Your task to perform on an android device: delete location history Image 0: 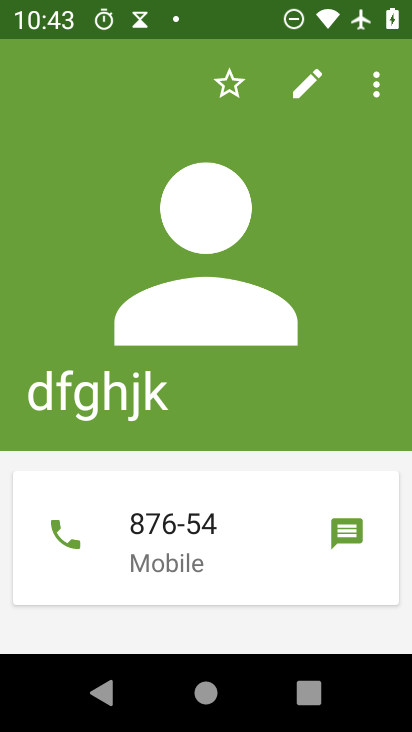
Step 0: press back button
Your task to perform on an android device: delete location history Image 1: 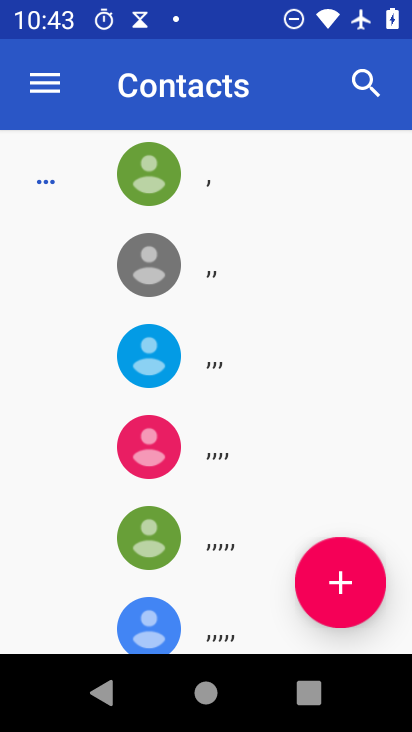
Step 1: press back button
Your task to perform on an android device: delete location history Image 2: 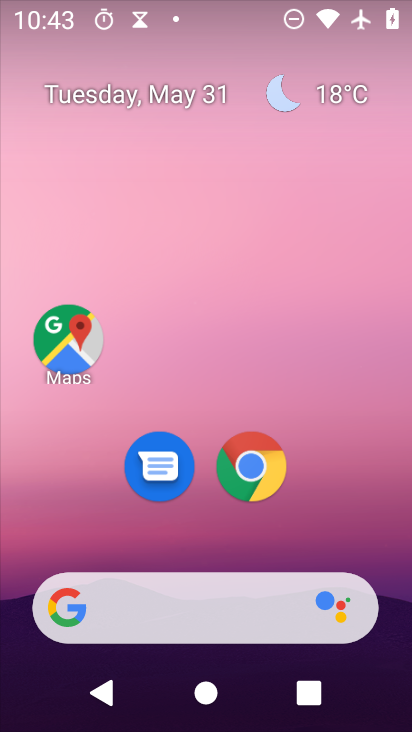
Step 2: drag from (338, 523) to (274, 10)
Your task to perform on an android device: delete location history Image 3: 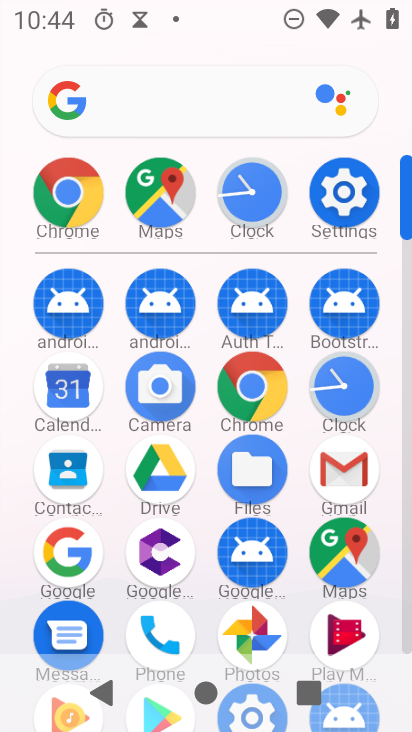
Step 3: click (345, 188)
Your task to perform on an android device: delete location history Image 4: 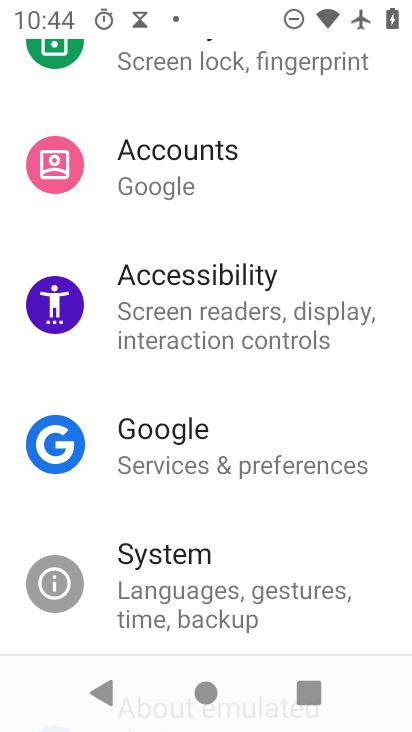
Step 4: drag from (243, 485) to (232, 99)
Your task to perform on an android device: delete location history Image 5: 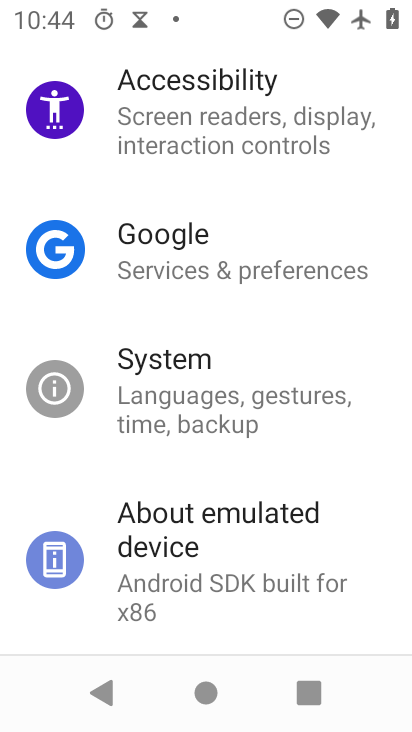
Step 5: drag from (198, 468) to (211, 112)
Your task to perform on an android device: delete location history Image 6: 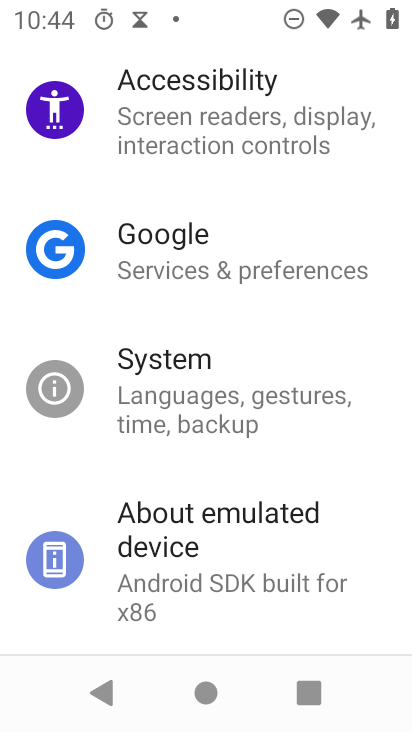
Step 6: drag from (227, 175) to (230, 530)
Your task to perform on an android device: delete location history Image 7: 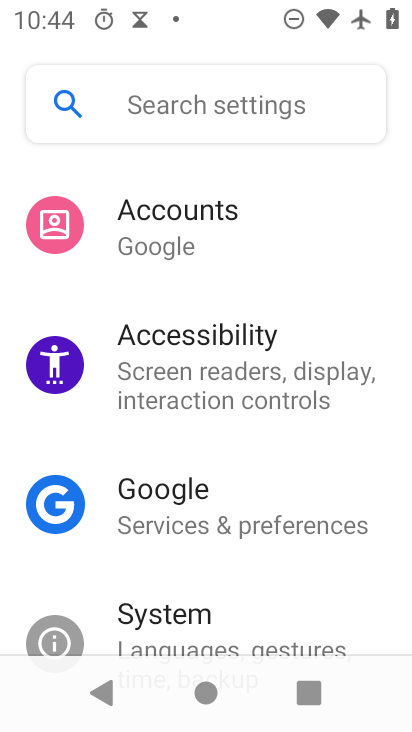
Step 7: drag from (272, 227) to (253, 533)
Your task to perform on an android device: delete location history Image 8: 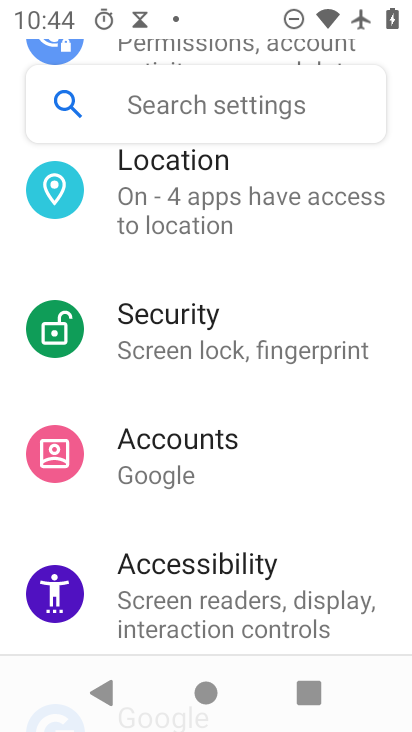
Step 8: drag from (300, 208) to (281, 467)
Your task to perform on an android device: delete location history Image 9: 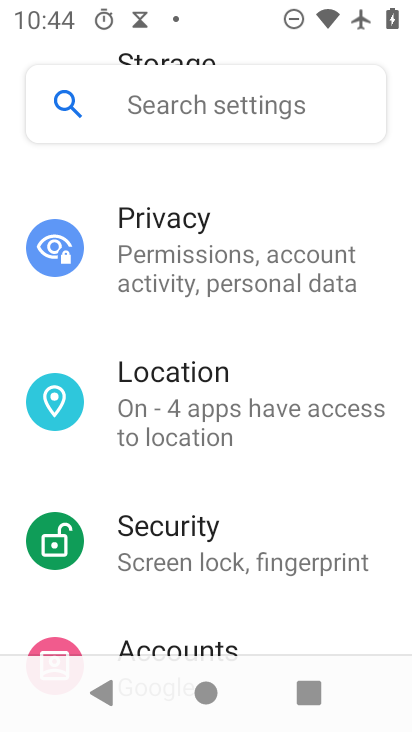
Step 9: click (227, 394)
Your task to perform on an android device: delete location history Image 10: 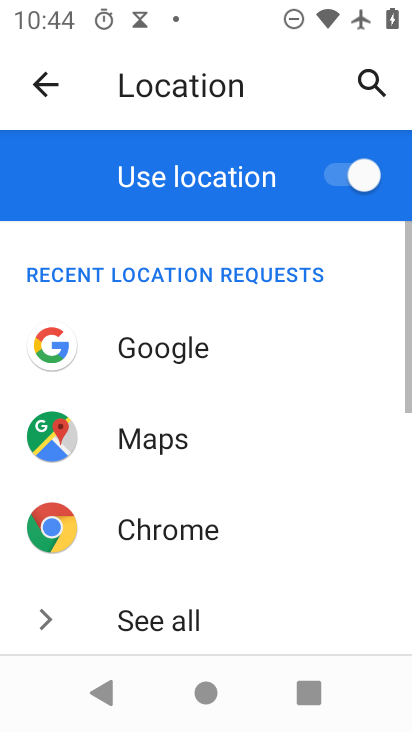
Step 10: drag from (223, 528) to (242, 85)
Your task to perform on an android device: delete location history Image 11: 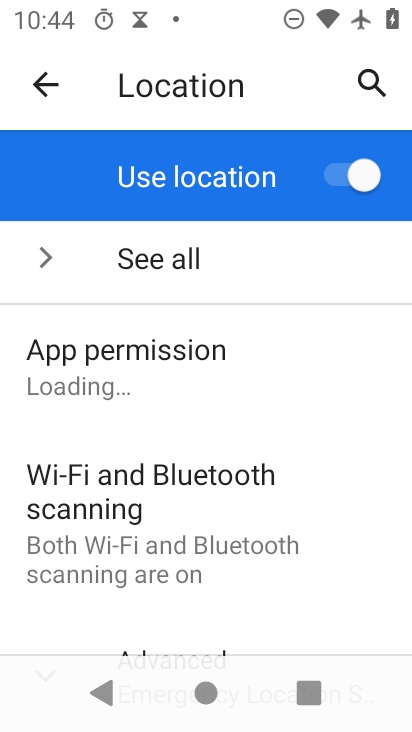
Step 11: drag from (206, 517) to (242, 141)
Your task to perform on an android device: delete location history Image 12: 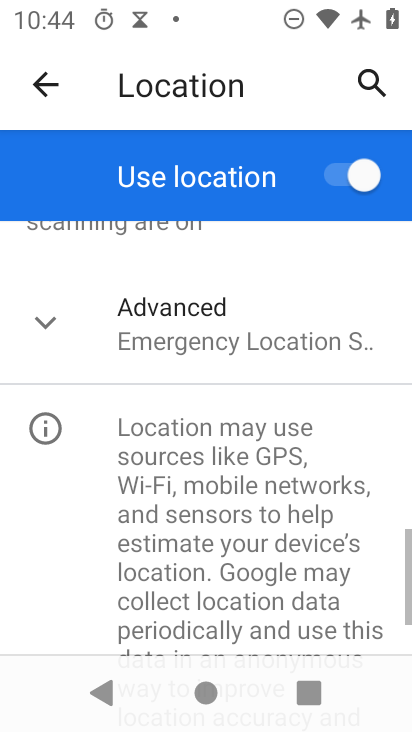
Step 12: click (149, 308)
Your task to perform on an android device: delete location history Image 13: 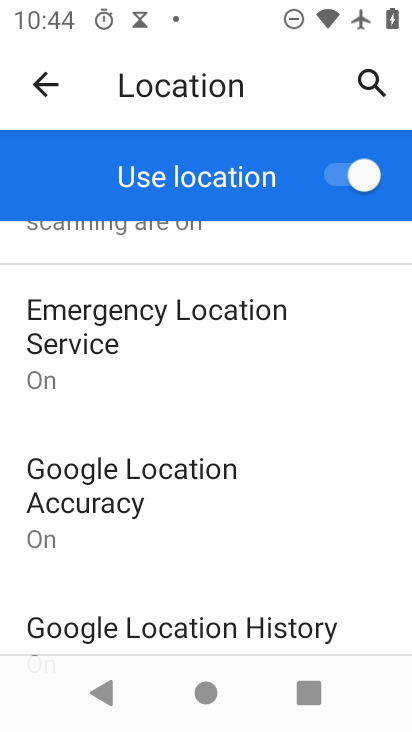
Step 13: drag from (211, 537) to (241, 262)
Your task to perform on an android device: delete location history Image 14: 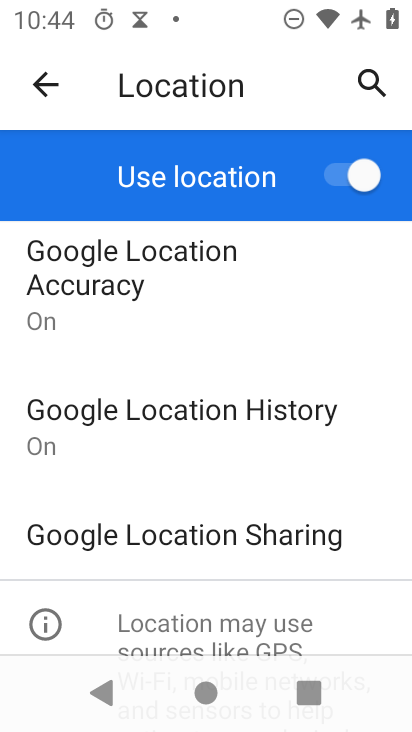
Step 14: click (102, 381)
Your task to perform on an android device: delete location history Image 15: 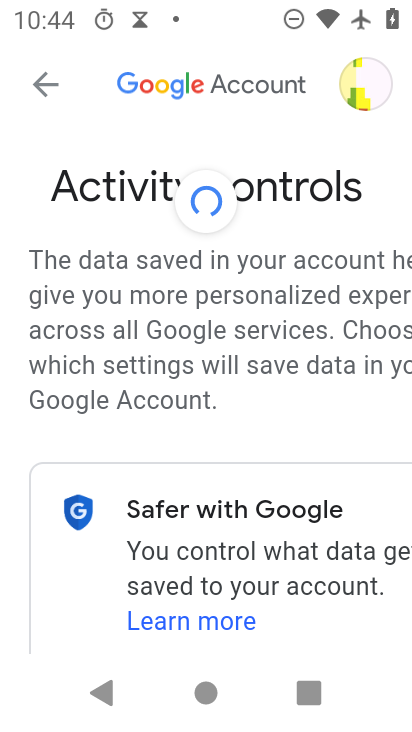
Step 15: drag from (238, 592) to (178, 157)
Your task to perform on an android device: delete location history Image 16: 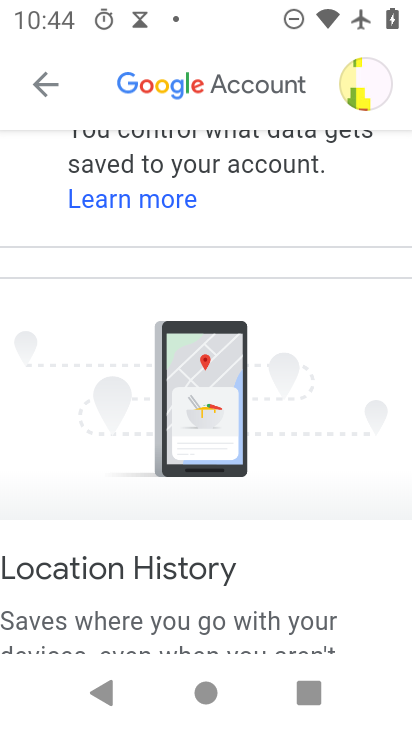
Step 16: drag from (235, 523) to (254, 145)
Your task to perform on an android device: delete location history Image 17: 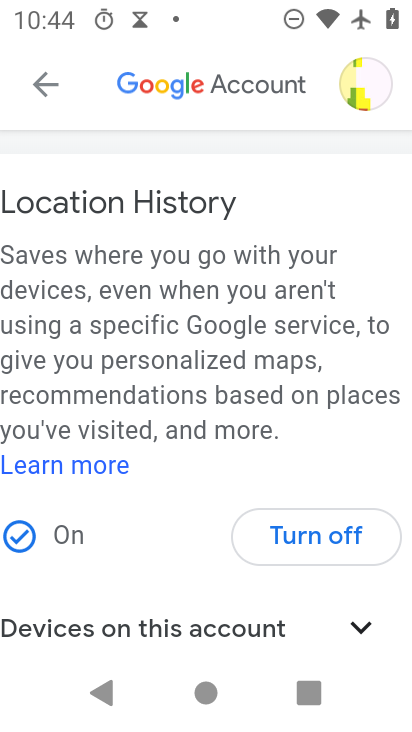
Step 17: drag from (187, 500) to (233, 184)
Your task to perform on an android device: delete location history Image 18: 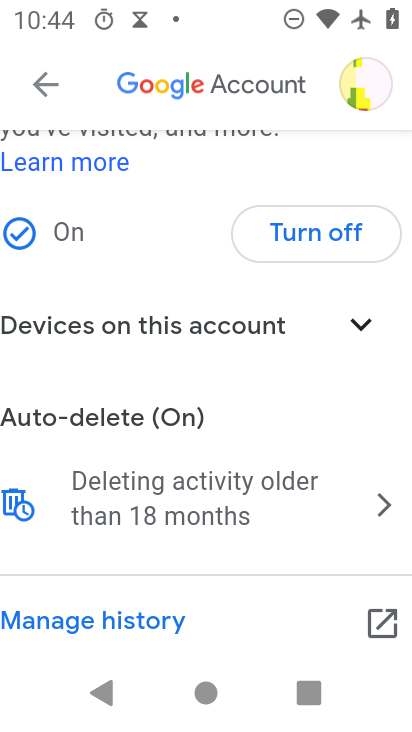
Step 18: click (60, 505)
Your task to perform on an android device: delete location history Image 19: 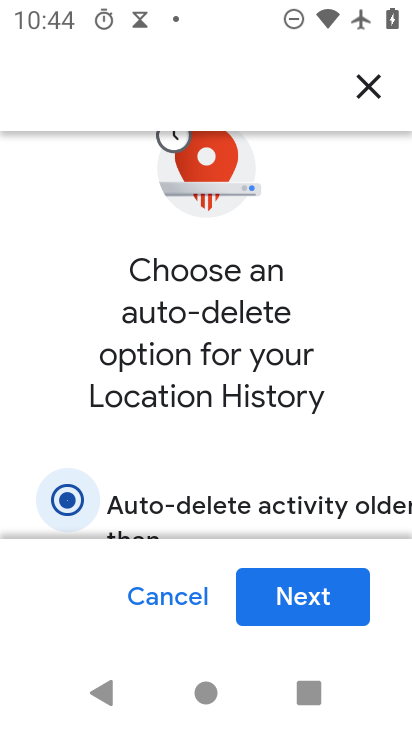
Step 19: click (273, 608)
Your task to perform on an android device: delete location history Image 20: 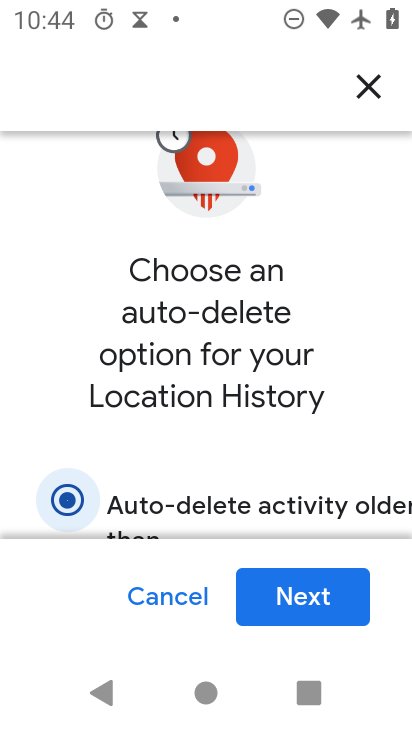
Step 20: click (273, 608)
Your task to perform on an android device: delete location history Image 21: 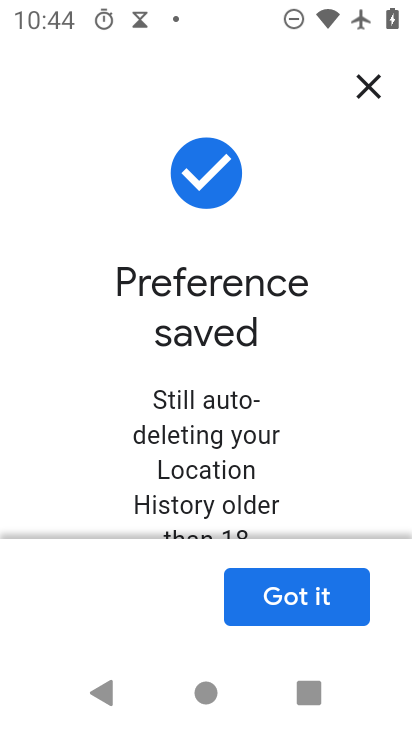
Step 21: click (287, 593)
Your task to perform on an android device: delete location history Image 22: 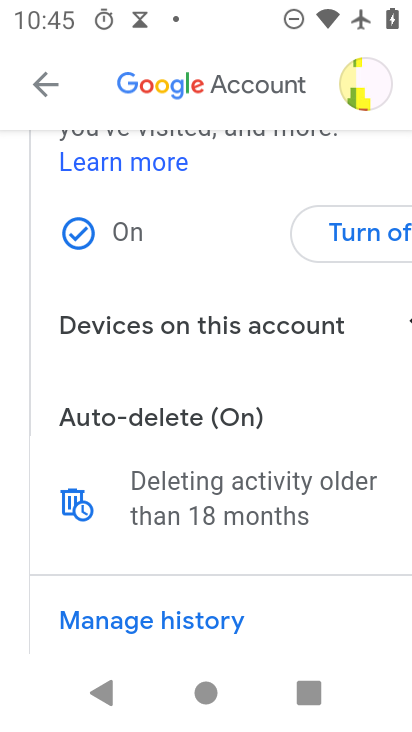
Step 22: drag from (273, 547) to (245, 378)
Your task to perform on an android device: delete location history Image 23: 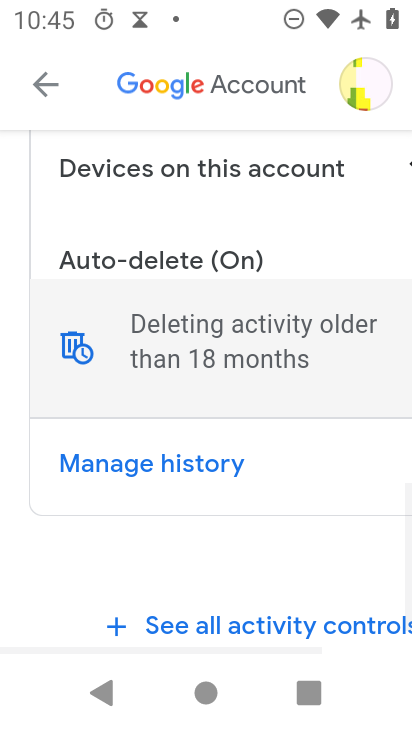
Step 23: click (144, 465)
Your task to perform on an android device: delete location history Image 24: 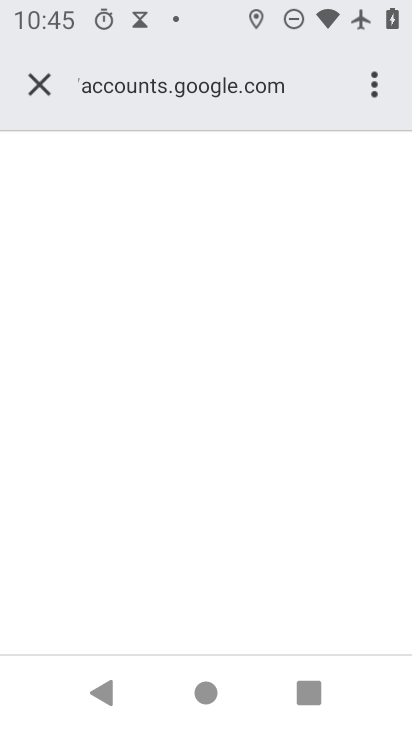
Step 24: click (34, 77)
Your task to perform on an android device: delete location history Image 25: 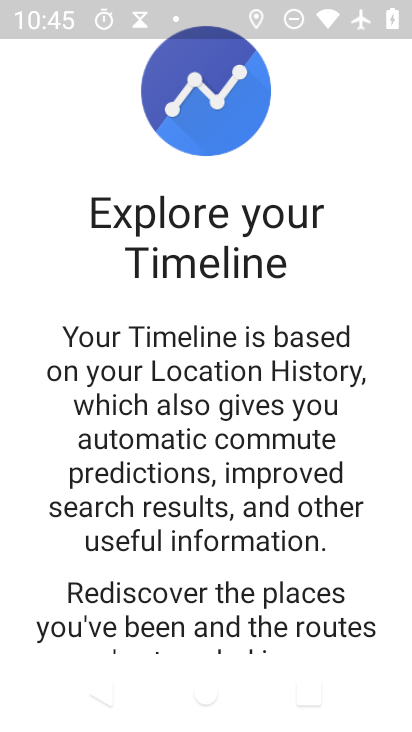
Step 25: press back button
Your task to perform on an android device: delete location history Image 26: 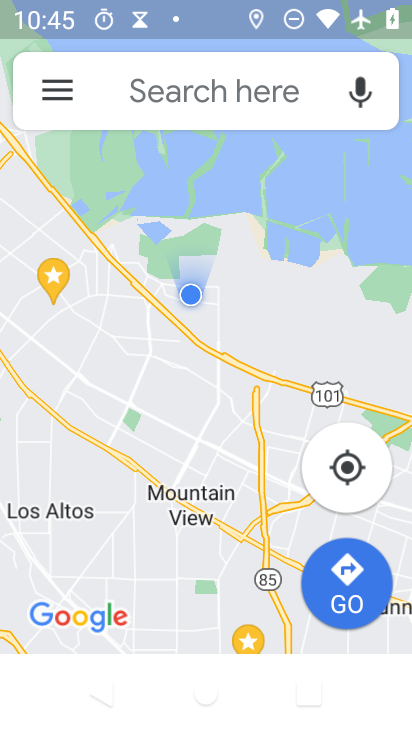
Step 26: press back button
Your task to perform on an android device: delete location history Image 27: 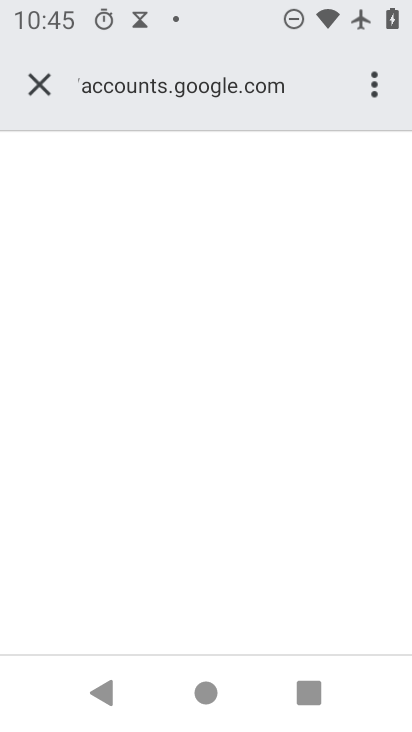
Step 27: click (40, 73)
Your task to perform on an android device: delete location history Image 28: 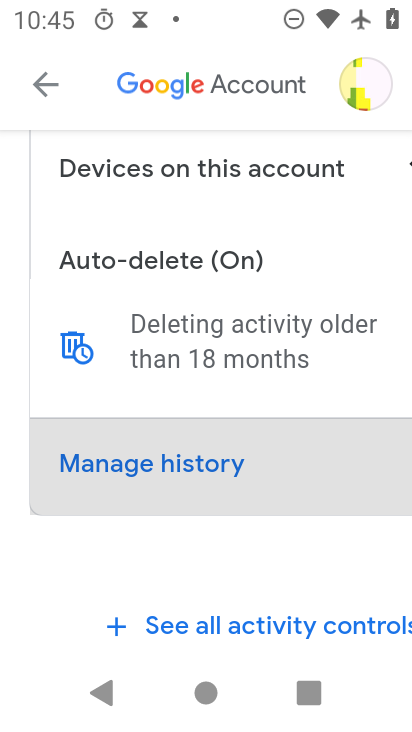
Step 28: click (168, 342)
Your task to perform on an android device: delete location history Image 29: 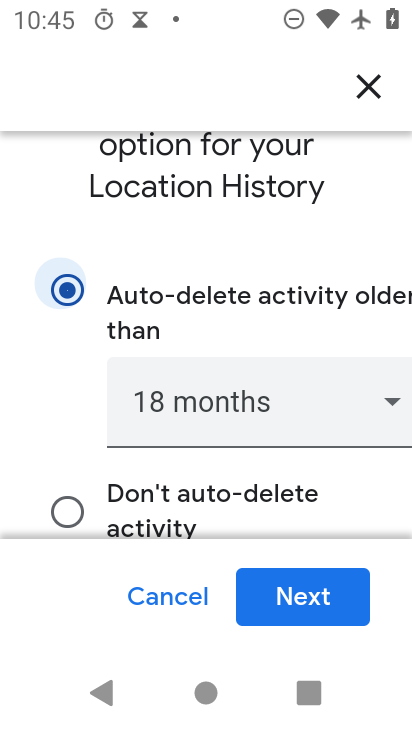
Step 29: click (282, 589)
Your task to perform on an android device: delete location history Image 30: 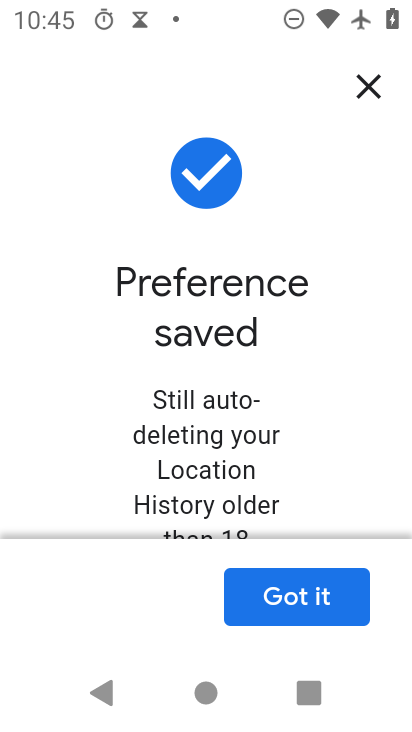
Step 30: click (282, 589)
Your task to perform on an android device: delete location history Image 31: 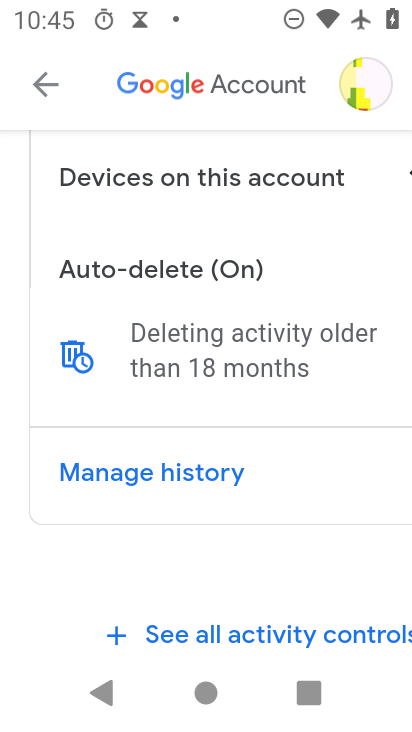
Step 31: task complete